Your task to perform on an android device: toggle pop-ups in chrome Image 0: 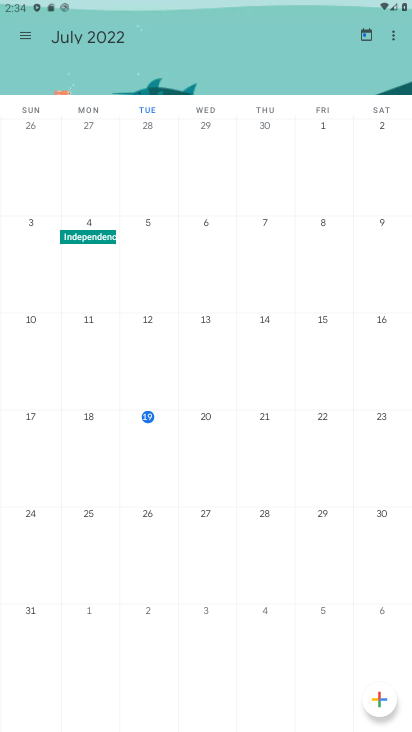
Step 0: press home button
Your task to perform on an android device: toggle pop-ups in chrome Image 1: 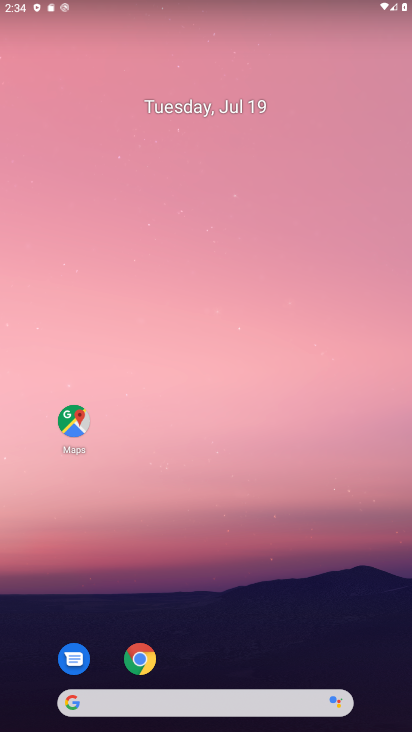
Step 1: click (141, 660)
Your task to perform on an android device: toggle pop-ups in chrome Image 2: 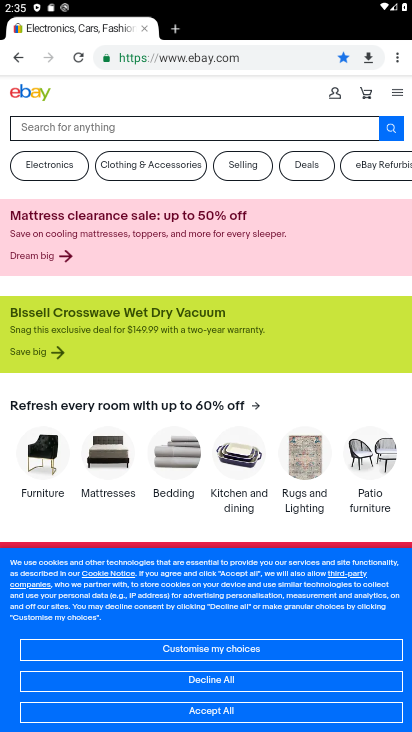
Step 2: click (398, 58)
Your task to perform on an android device: toggle pop-ups in chrome Image 3: 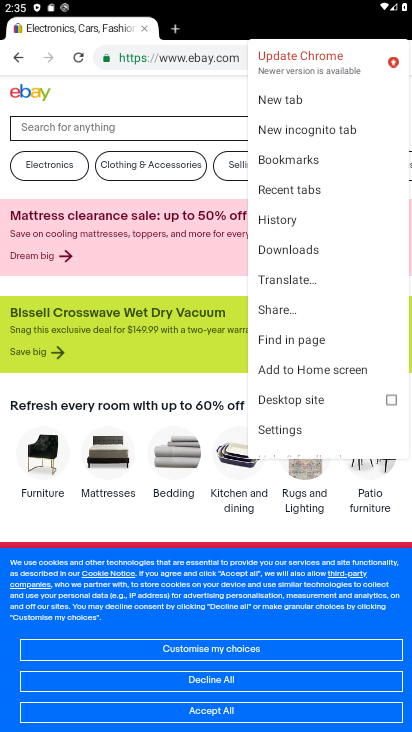
Step 3: click (280, 434)
Your task to perform on an android device: toggle pop-ups in chrome Image 4: 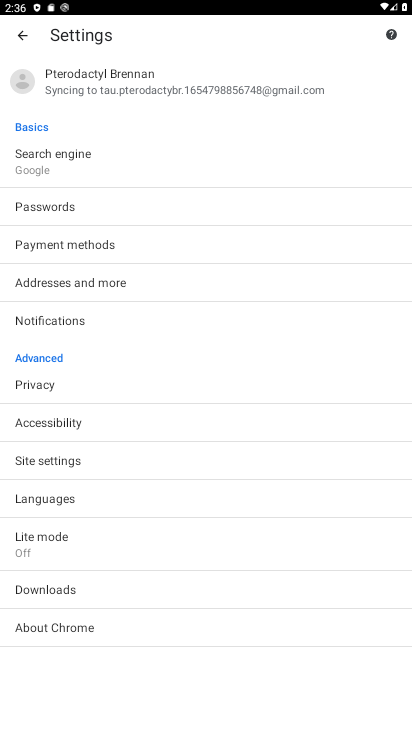
Step 4: click (45, 462)
Your task to perform on an android device: toggle pop-ups in chrome Image 5: 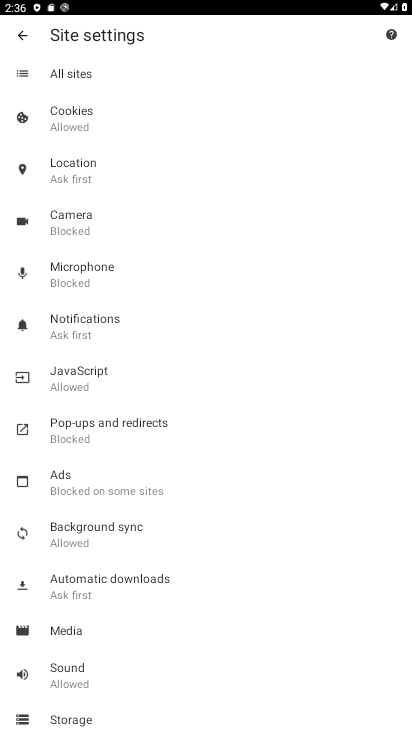
Step 5: click (87, 434)
Your task to perform on an android device: toggle pop-ups in chrome Image 6: 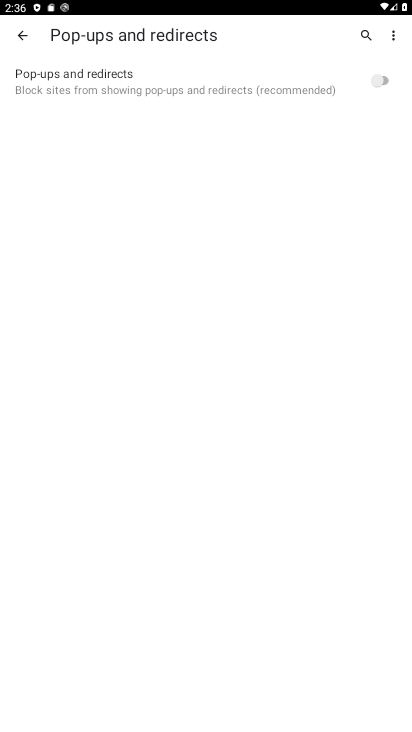
Step 6: click (383, 77)
Your task to perform on an android device: toggle pop-ups in chrome Image 7: 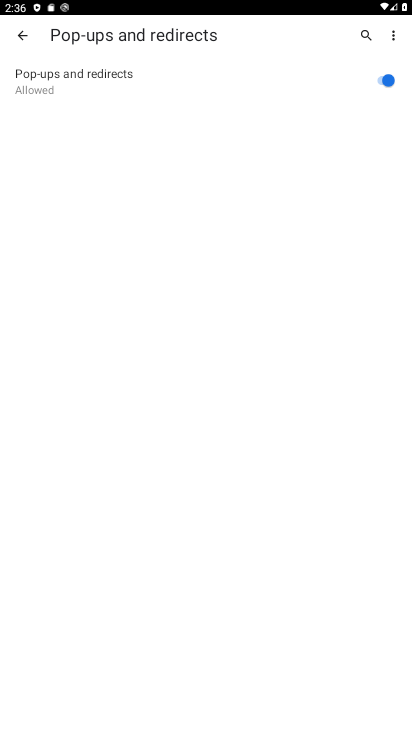
Step 7: task complete